Your task to perform on an android device: open sync settings in chrome Image 0: 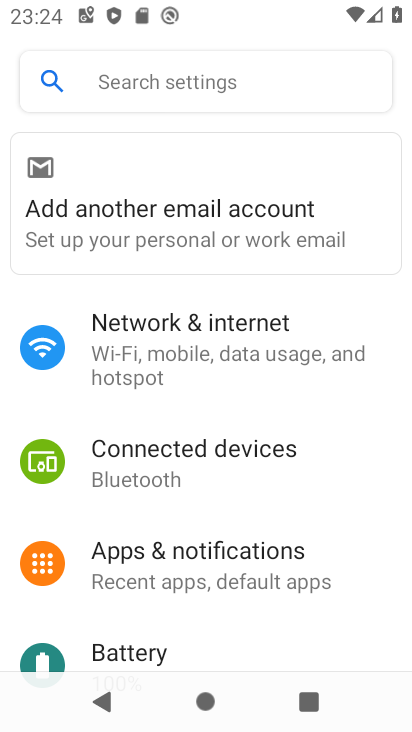
Step 0: press home button
Your task to perform on an android device: open sync settings in chrome Image 1: 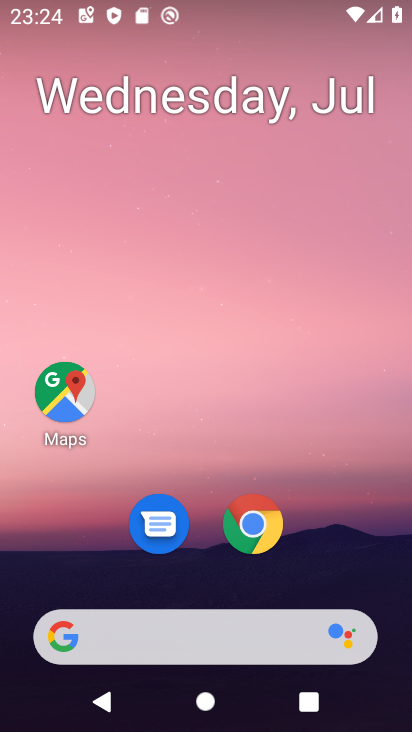
Step 1: click (250, 531)
Your task to perform on an android device: open sync settings in chrome Image 2: 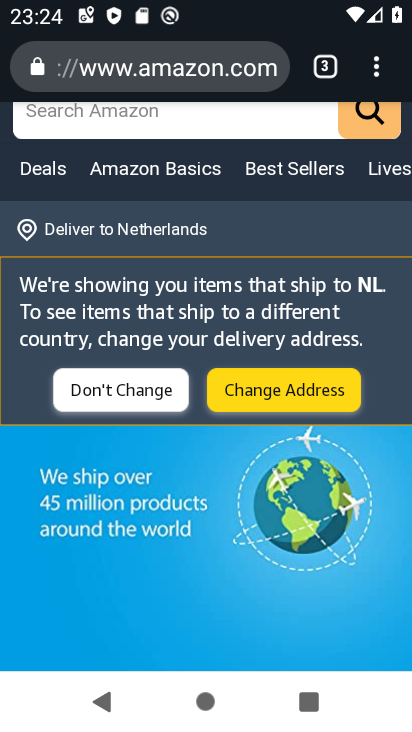
Step 2: drag from (377, 68) to (200, 532)
Your task to perform on an android device: open sync settings in chrome Image 3: 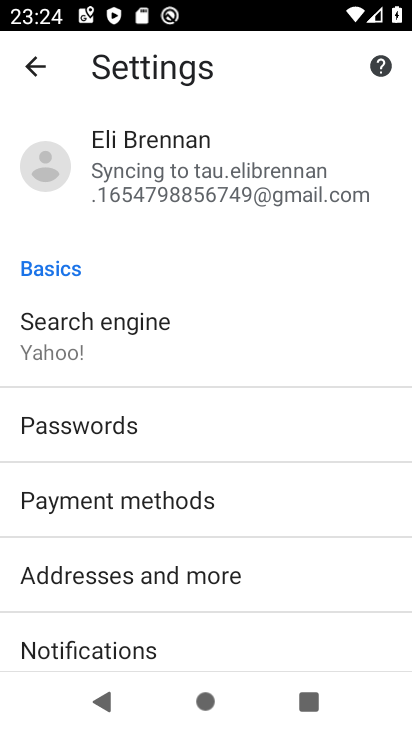
Step 3: click (145, 207)
Your task to perform on an android device: open sync settings in chrome Image 4: 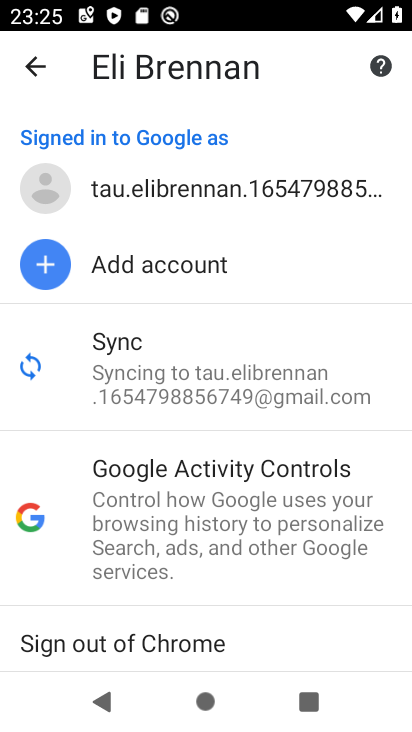
Step 4: click (138, 346)
Your task to perform on an android device: open sync settings in chrome Image 5: 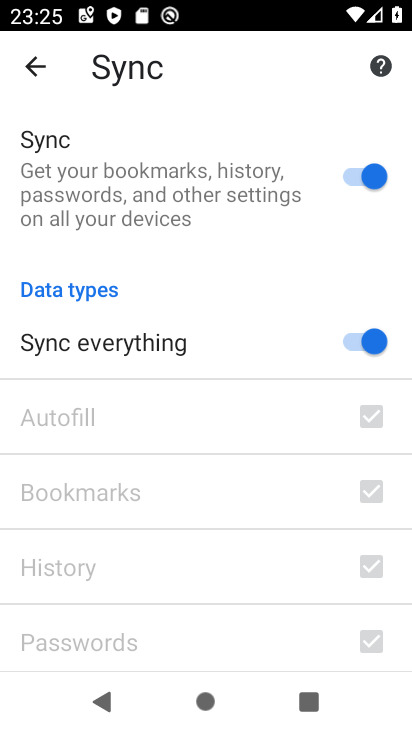
Step 5: task complete